Your task to perform on an android device: set default search engine in the chrome app Image 0: 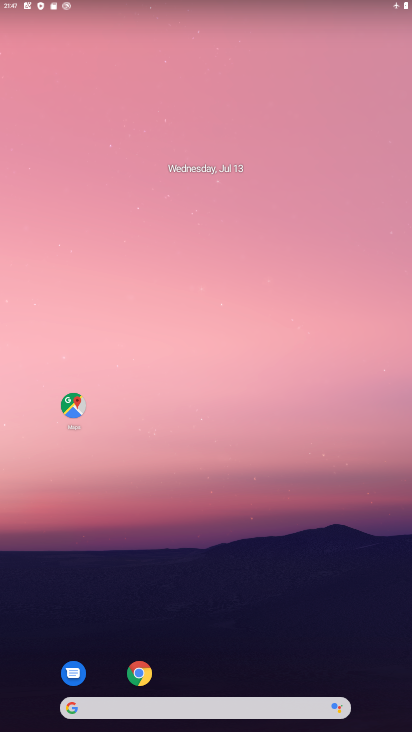
Step 0: click (139, 674)
Your task to perform on an android device: set default search engine in the chrome app Image 1: 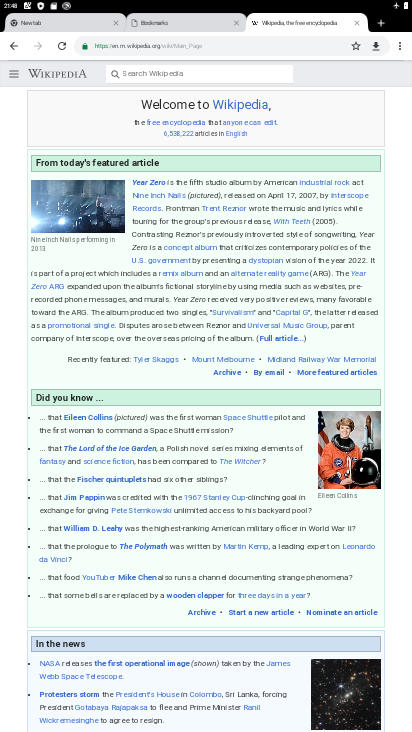
Step 1: click (401, 50)
Your task to perform on an android device: set default search engine in the chrome app Image 2: 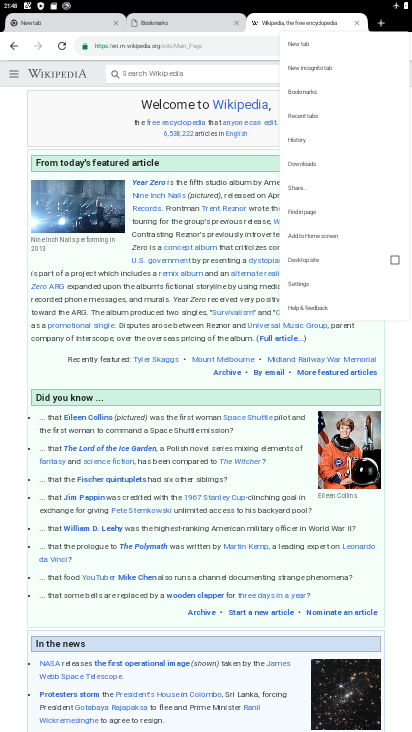
Step 2: click (320, 284)
Your task to perform on an android device: set default search engine in the chrome app Image 3: 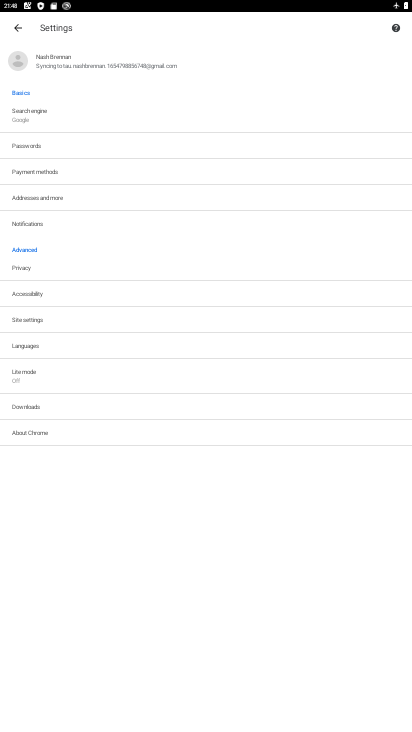
Step 3: click (31, 113)
Your task to perform on an android device: set default search engine in the chrome app Image 4: 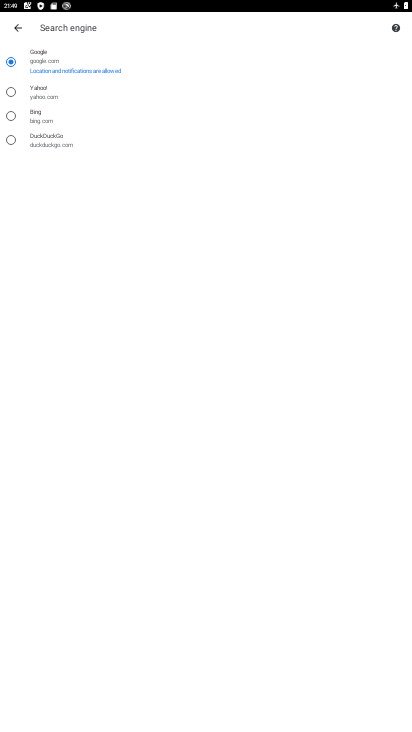
Step 4: task complete